Your task to perform on an android device: open app "Paramount+ | Peak Streaming" (install if not already installed) Image 0: 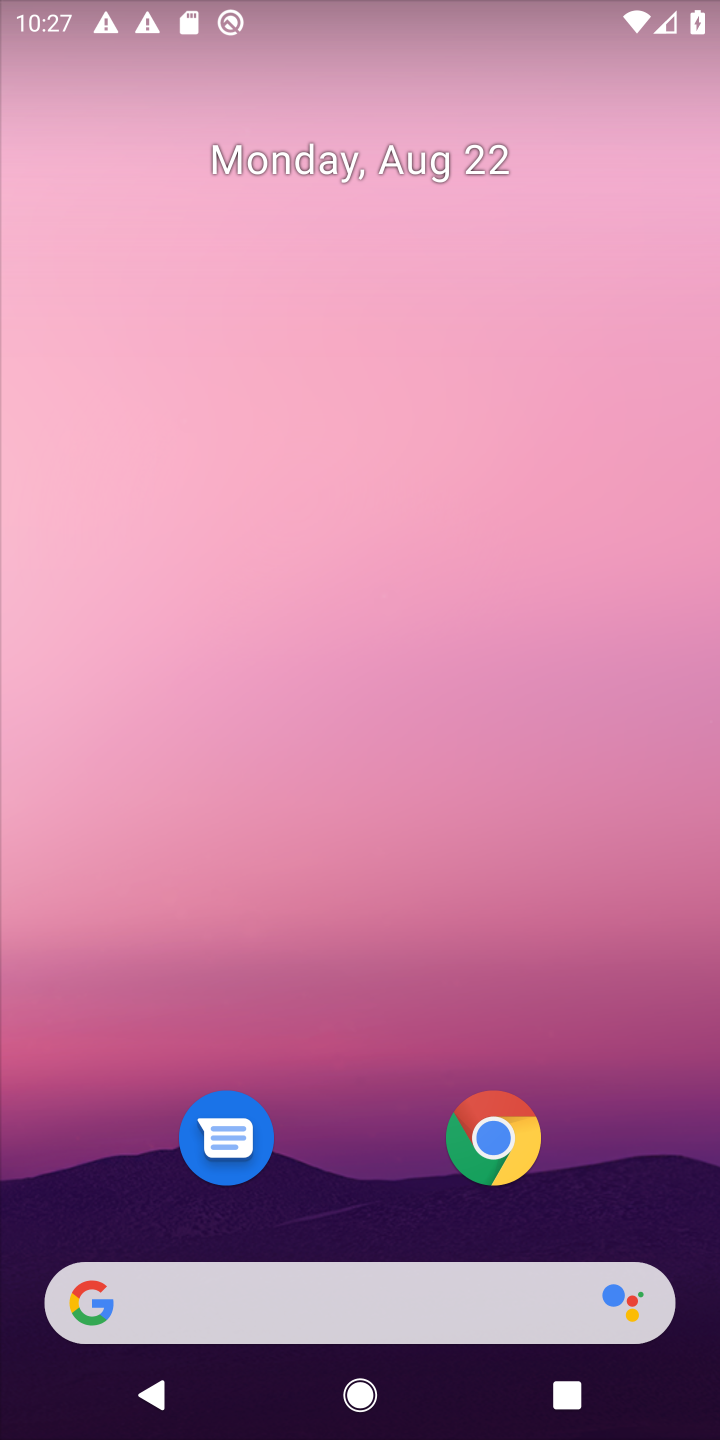
Step 0: press home button
Your task to perform on an android device: open app "Paramount+ | Peak Streaming" (install if not already installed) Image 1: 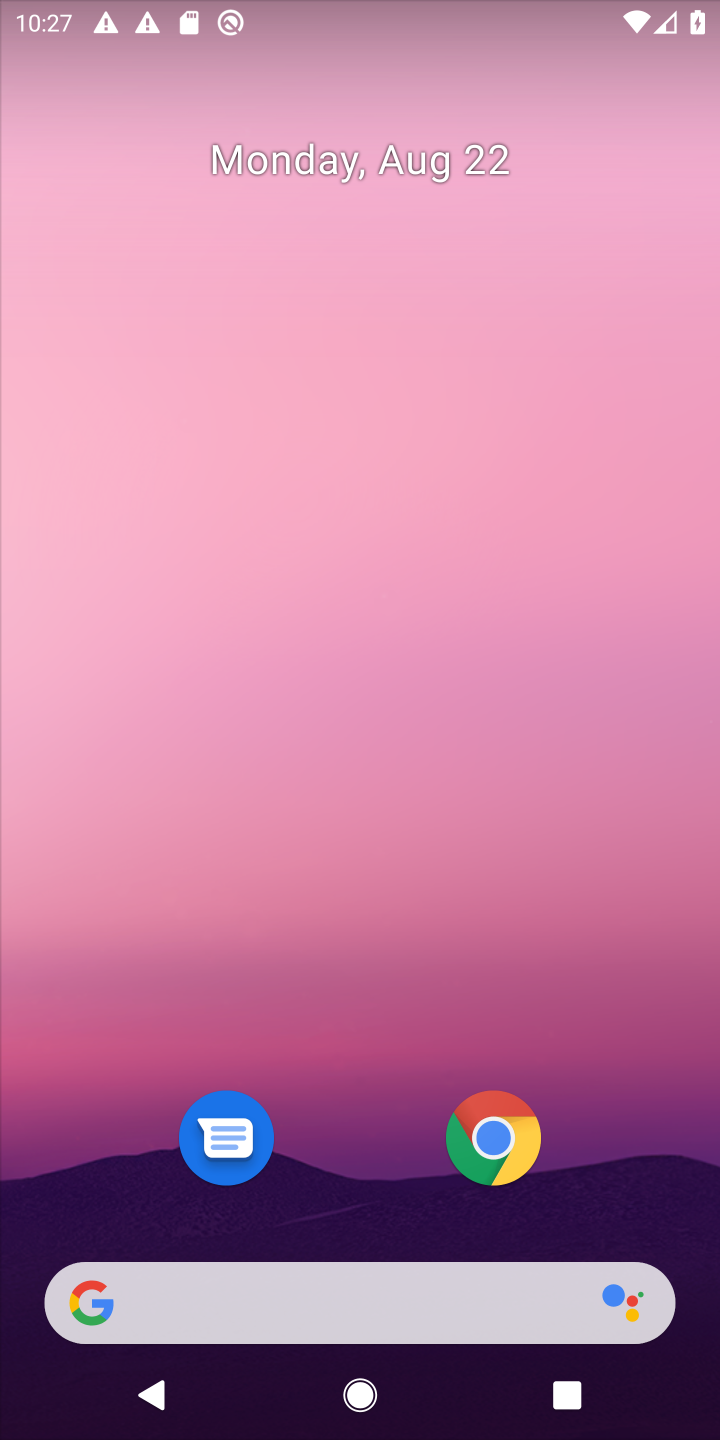
Step 1: drag from (608, 1031) to (627, 146)
Your task to perform on an android device: open app "Paramount+ | Peak Streaming" (install if not already installed) Image 2: 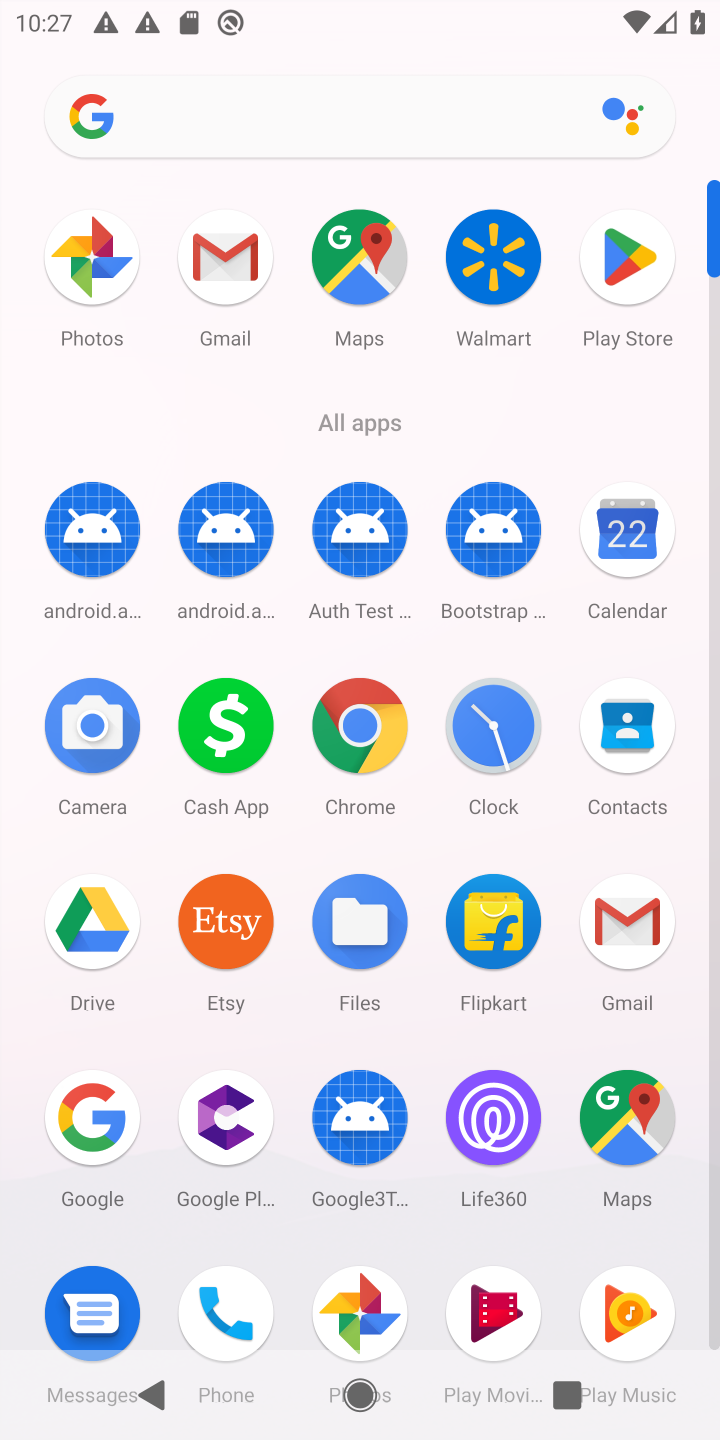
Step 2: click (621, 265)
Your task to perform on an android device: open app "Paramount+ | Peak Streaming" (install if not already installed) Image 3: 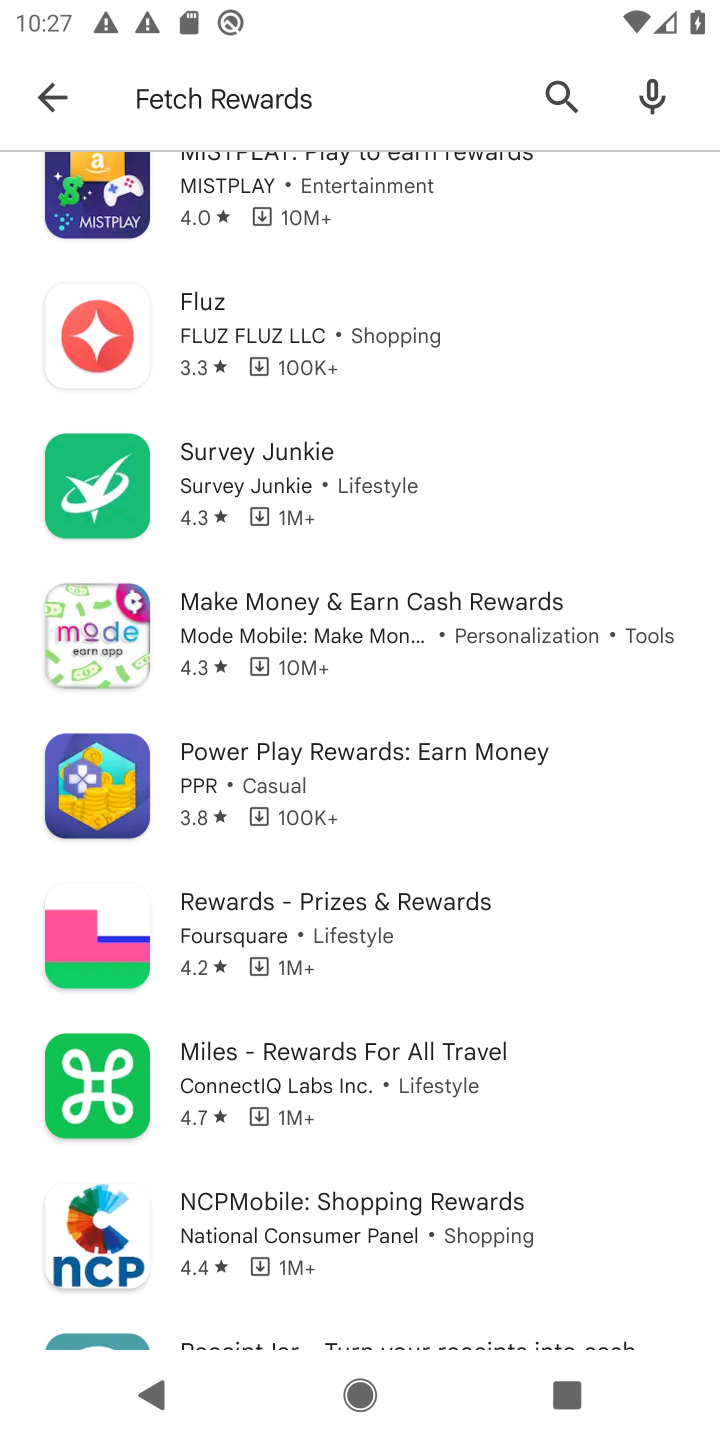
Step 3: press back button
Your task to perform on an android device: open app "Paramount+ | Peak Streaming" (install if not already installed) Image 4: 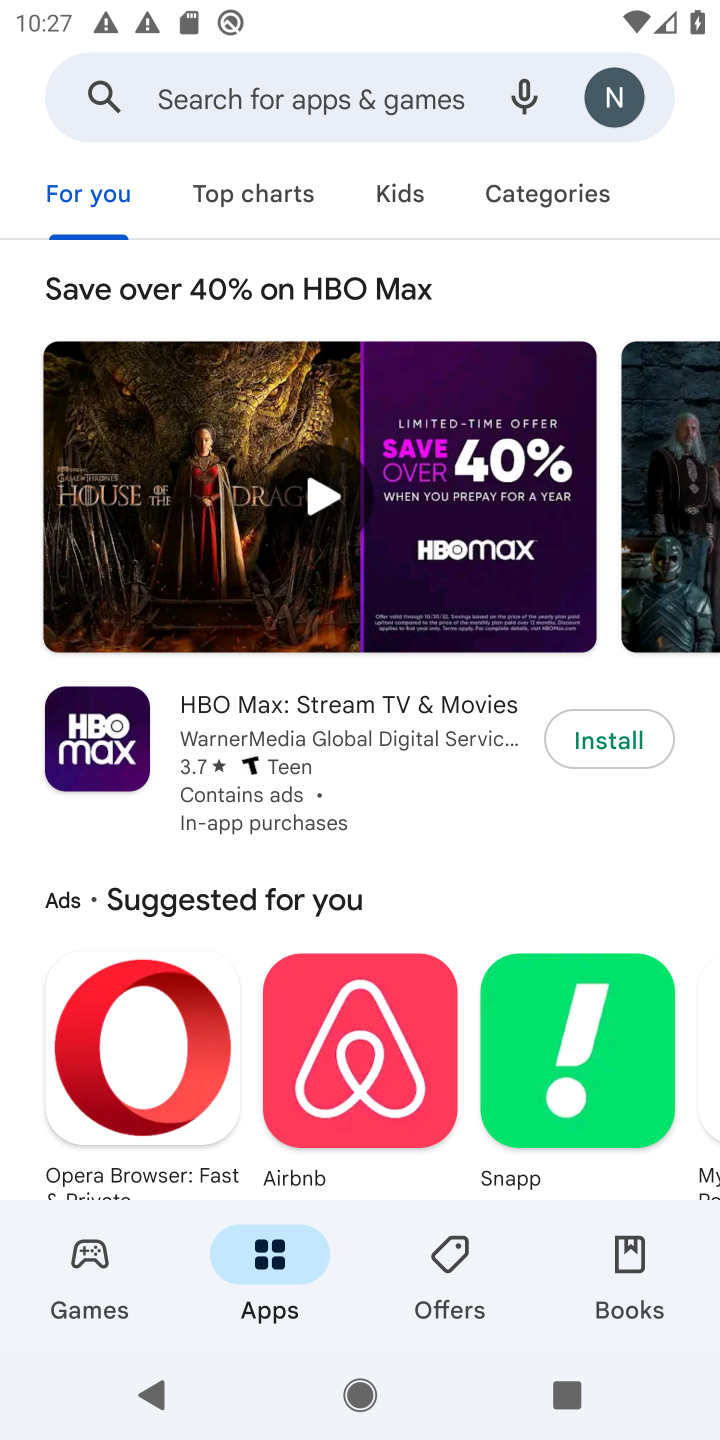
Step 4: click (225, 92)
Your task to perform on an android device: open app "Paramount+ | Peak Streaming" (install if not already installed) Image 5: 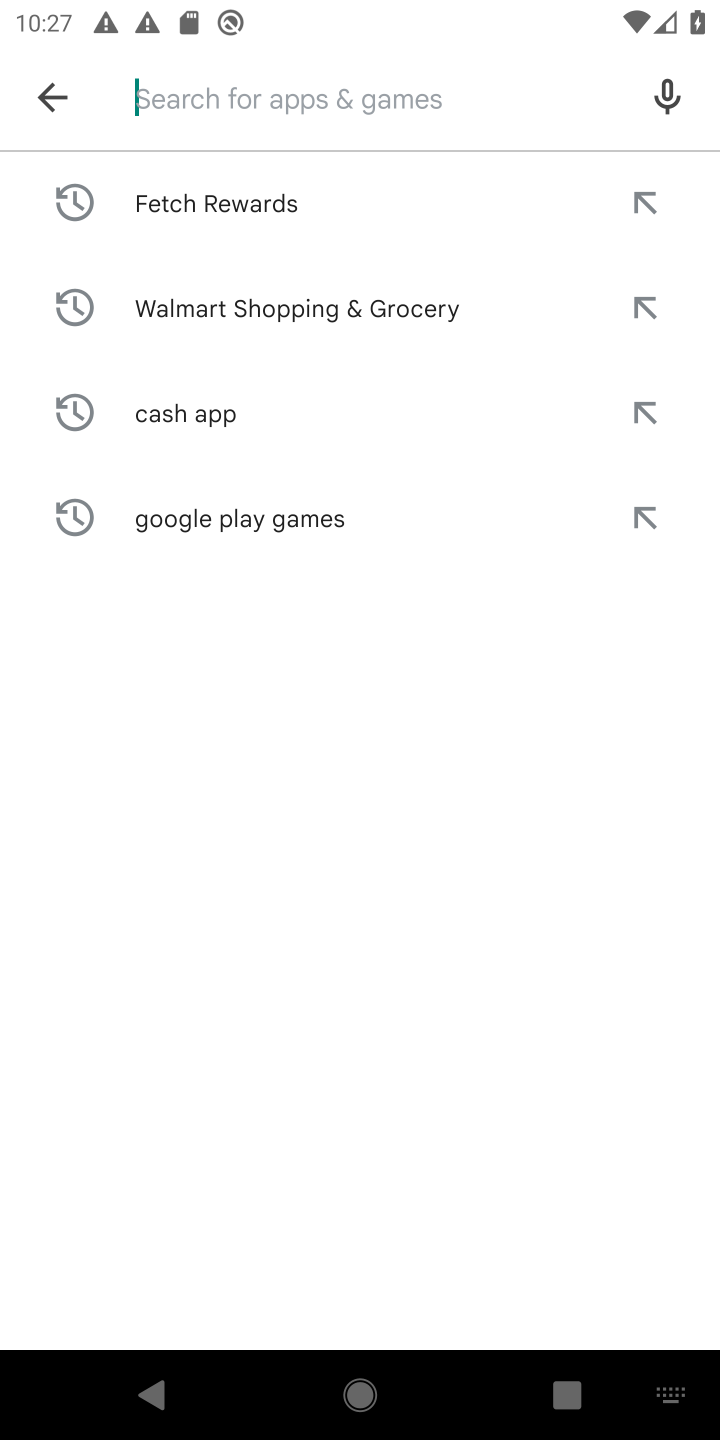
Step 5: press enter
Your task to perform on an android device: open app "Paramount+ | Peak Streaming" (install if not already installed) Image 6: 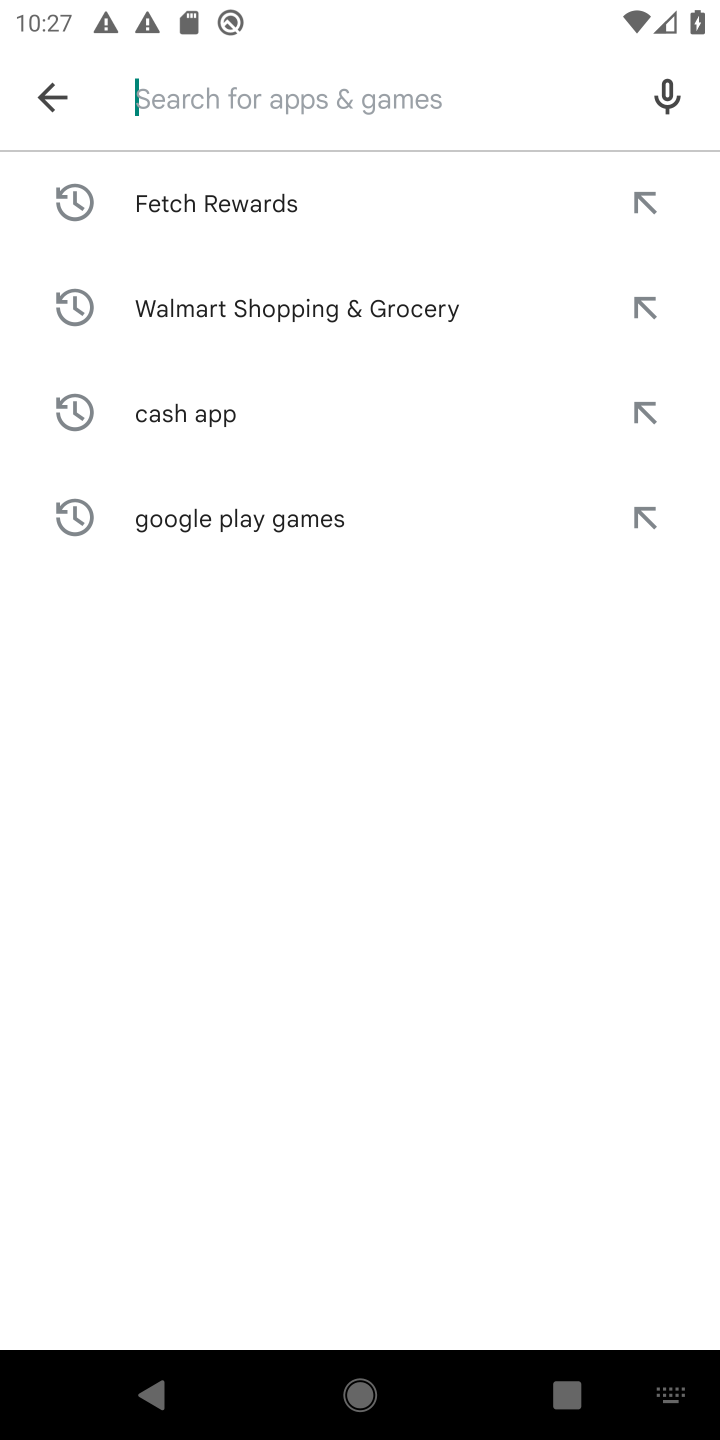
Step 6: type "Paramount+ | Peak Streaming"
Your task to perform on an android device: open app "Paramount+ | Peak Streaming" (install if not already installed) Image 7: 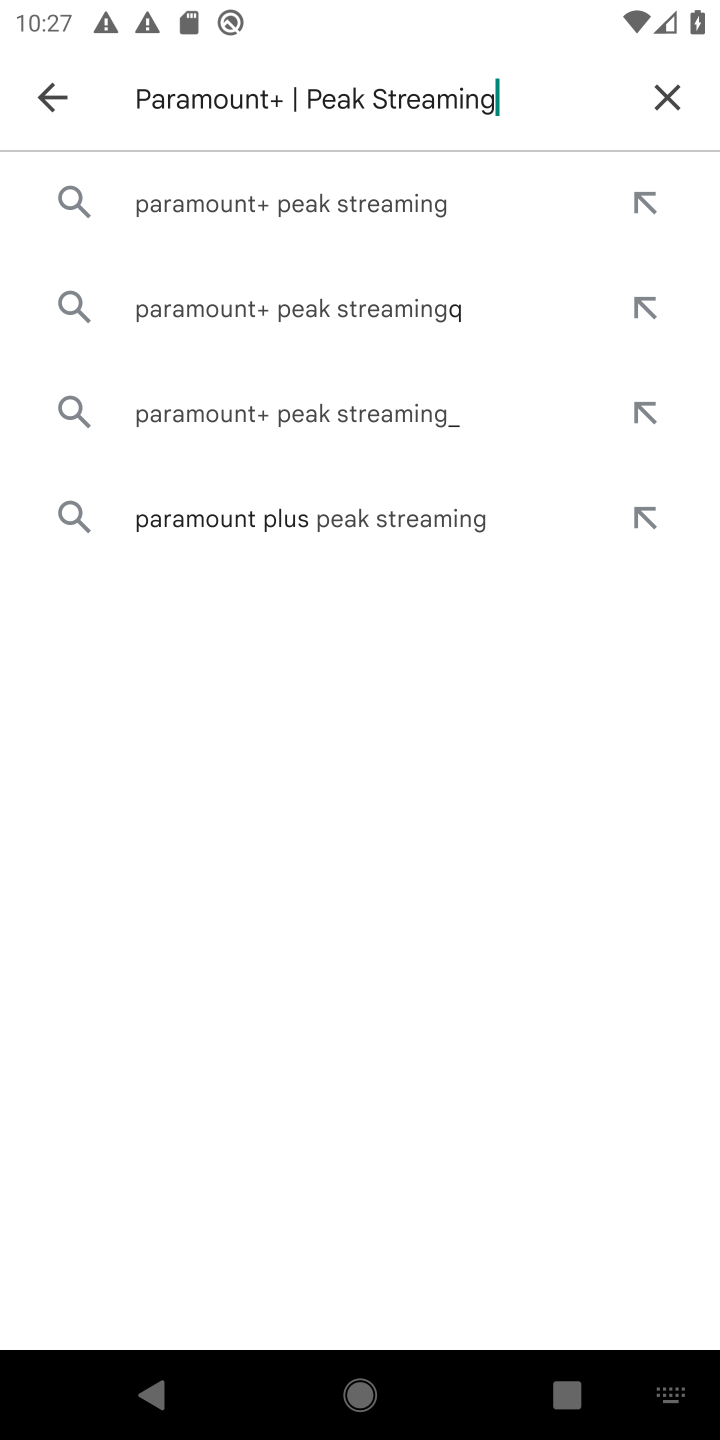
Step 7: click (346, 199)
Your task to perform on an android device: open app "Paramount+ | Peak Streaming" (install if not already installed) Image 8: 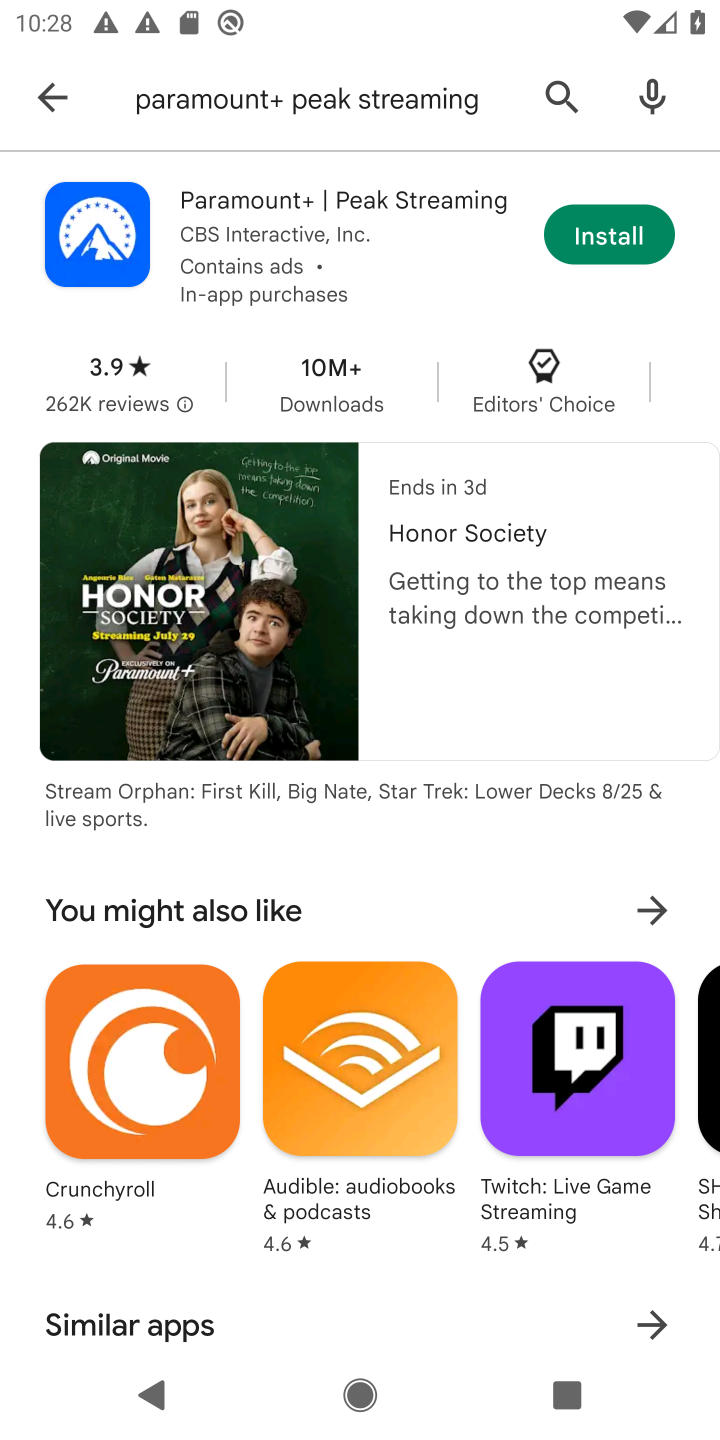
Step 8: click (600, 233)
Your task to perform on an android device: open app "Paramount+ | Peak Streaming" (install if not already installed) Image 9: 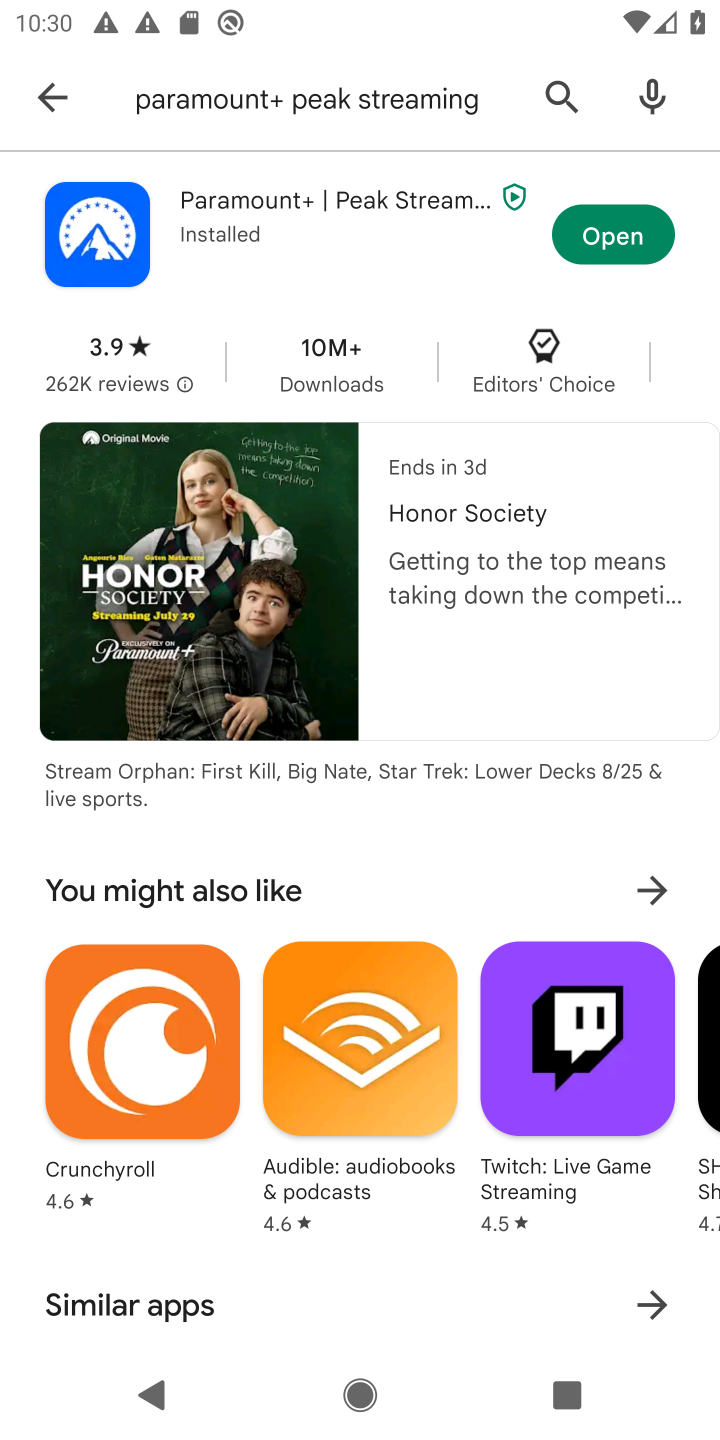
Step 9: click (643, 256)
Your task to perform on an android device: open app "Paramount+ | Peak Streaming" (install if not already installed) Image 10: 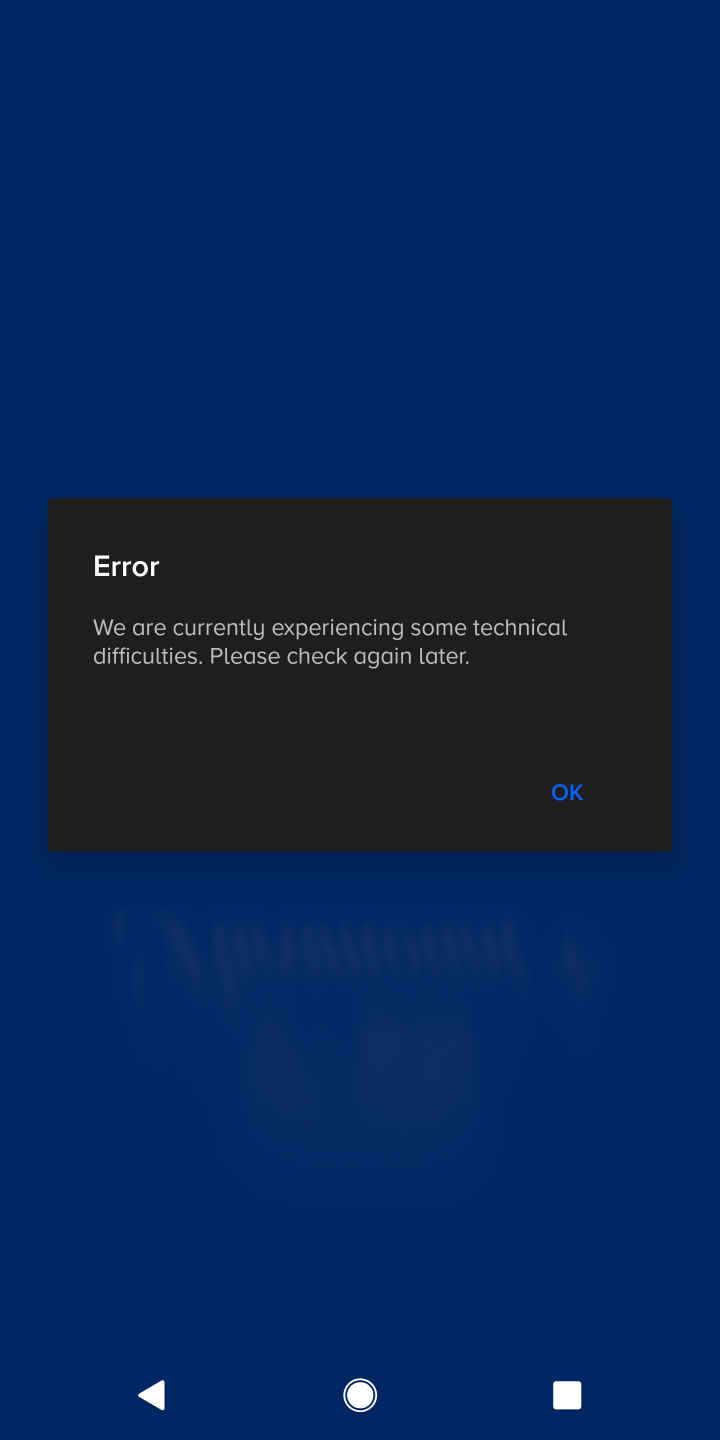
Step 10: task complete